Your task to perform on an android device: find photos in the google photos app Image 0: 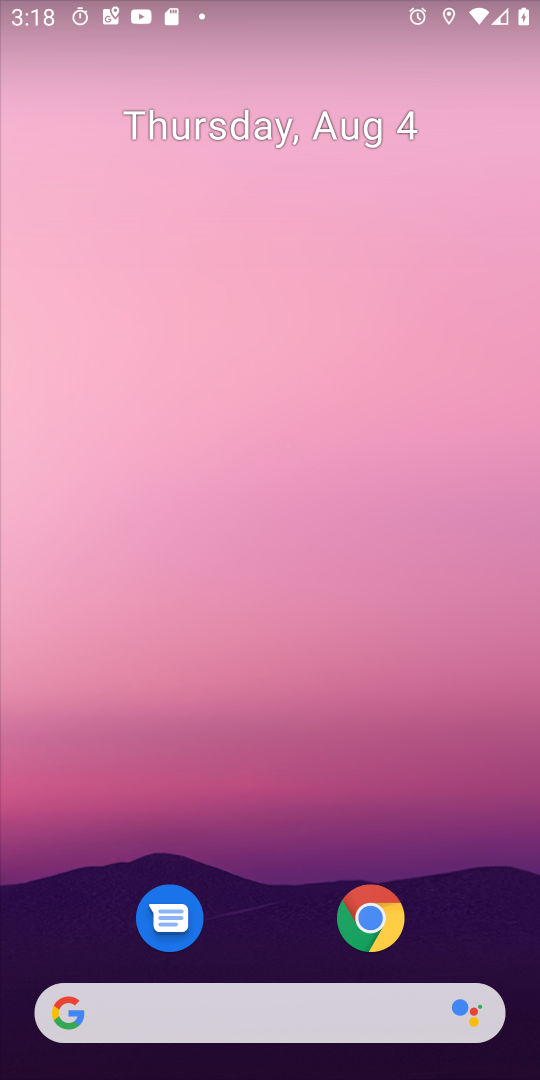
Step 0: drag from (271, 945) to (291, 284)
Your task to perform on an android device: find photos in the google photos app Image 1: 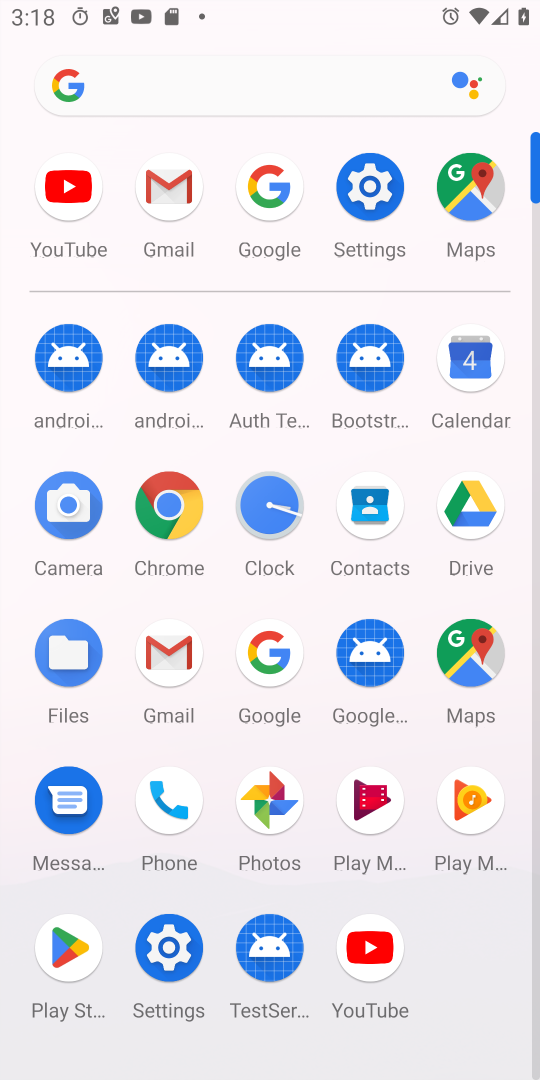
Step 1: click (281, 791)
Your task to perform on an android device: find photos in the google photos app Image 2: 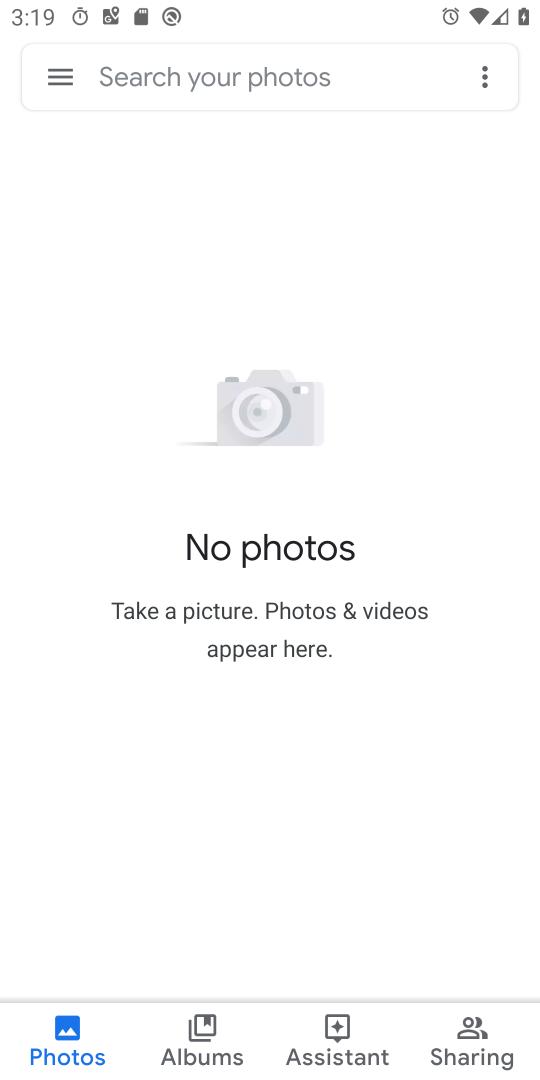
Step 2: click (270, 92)
Your task to perform on an android device: find photos in the google photos app Image 3: 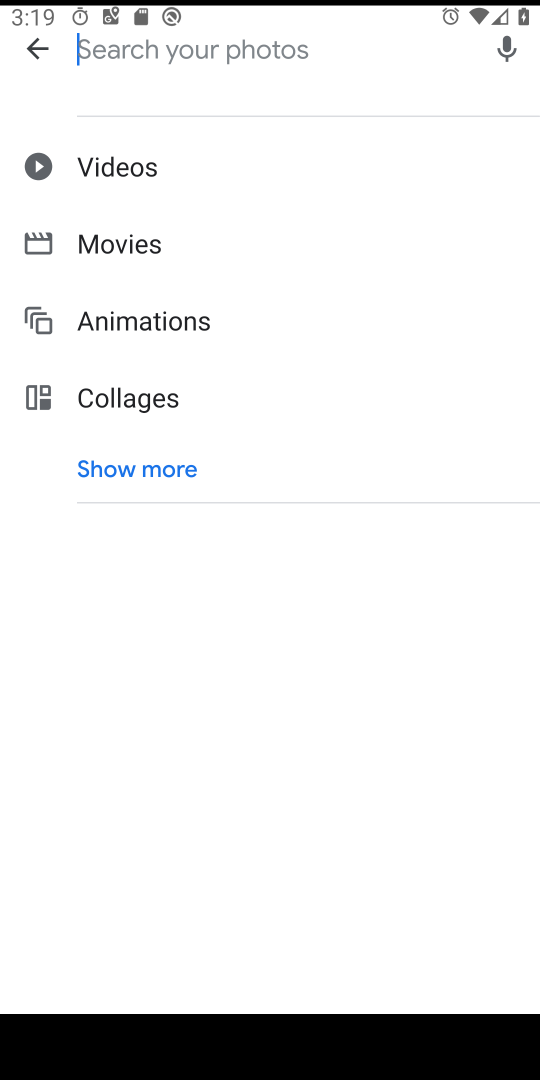
Step 3: type "aa"
Your task to perform on an android device: find photos in the google photos app Image 4: 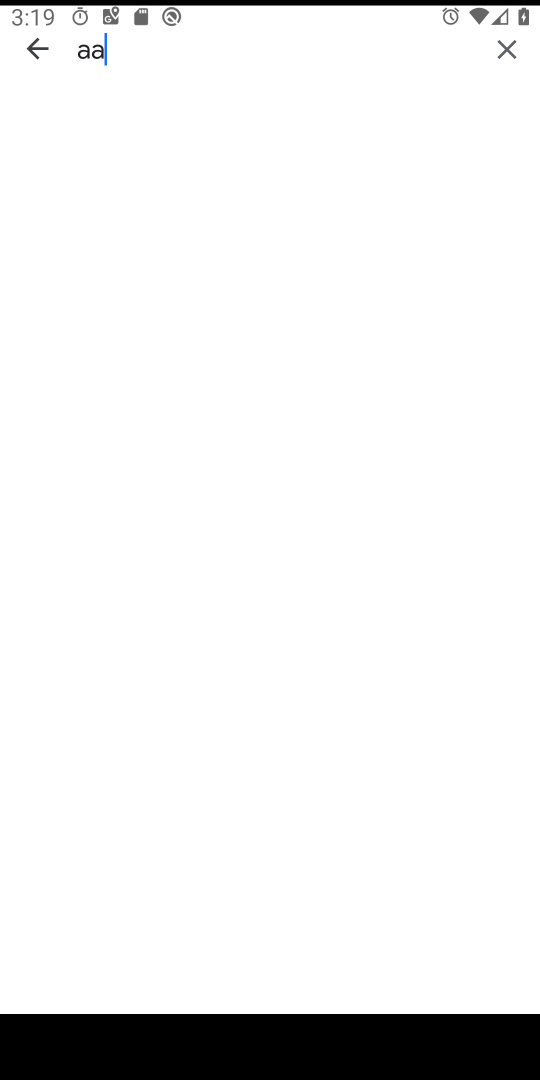
Step 4: type ""
Your task to perform on an android device: find photos in the google photos app Image 5: 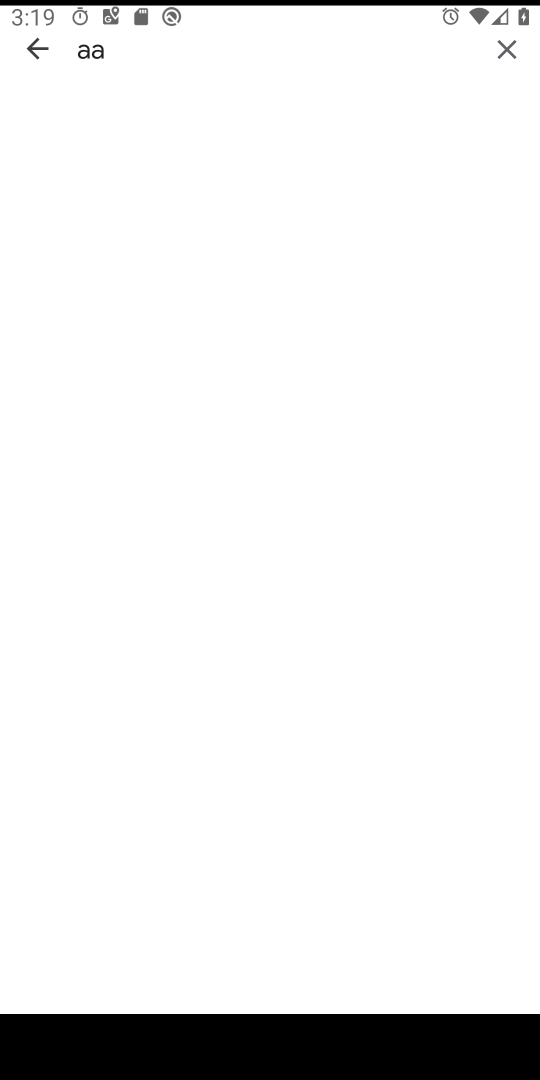
Step 5: task complete